Your task to perform on an android device: turn off translation in the chrome app Image 0: 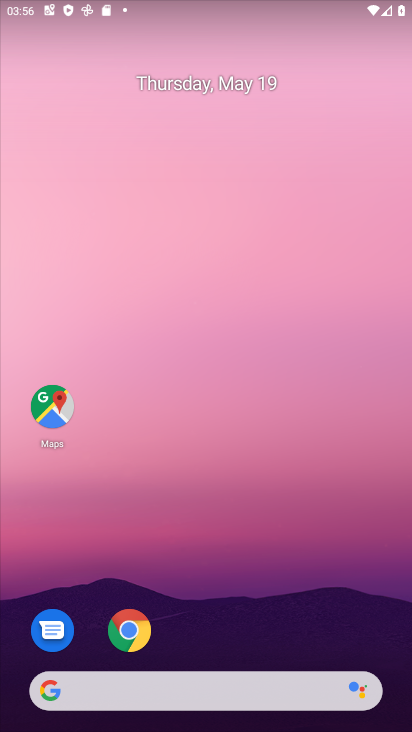
Step 0: click (129, 628)
Your task to perform on an android device: turn off translation in the chrome app Image 1: 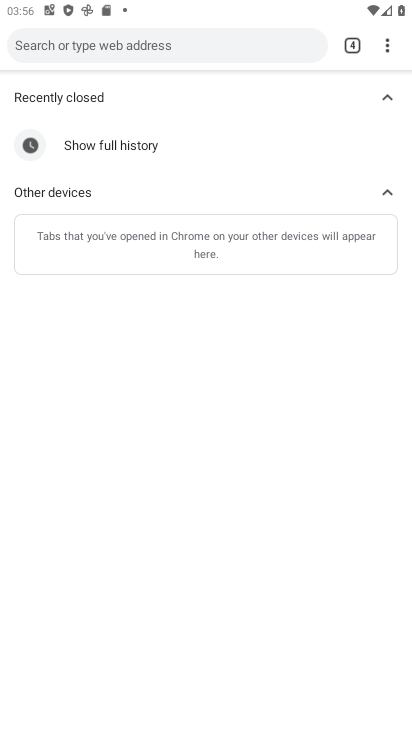
Step 1: click (387, 48)
Your task to perform on an android device: turn off translation in the chrome app Image 2: 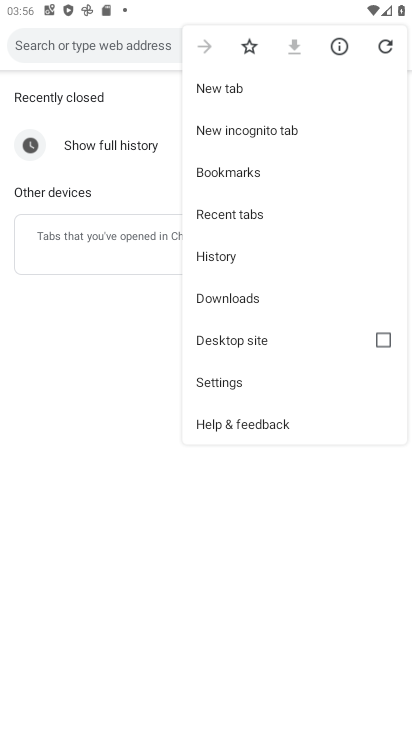
Step 2: click (225, 372)
Your task to perform on an android device: turn off translation in the chrome app Image 3: 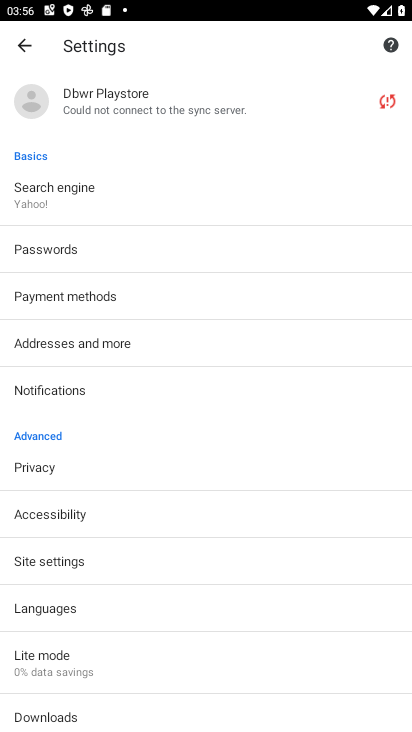
Step 3: drag from (128, 641) to (147, 387)
Your task to perform on an android device: turn off translation in the chrome app Image 4: 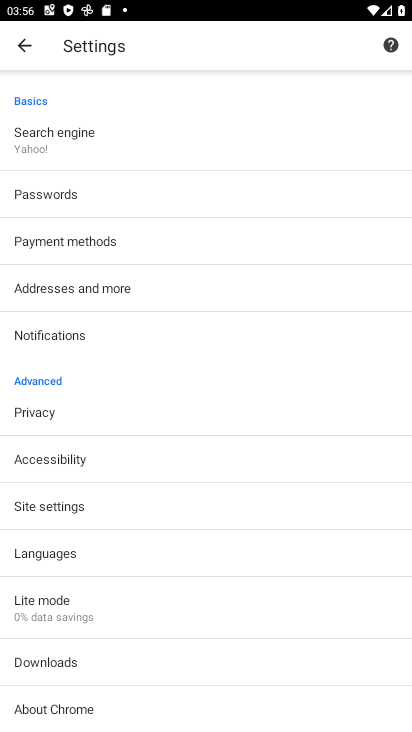
Step 4: click (49, 555)
Your task to perform on an android device: turn off translation in the chrome app Image 5: 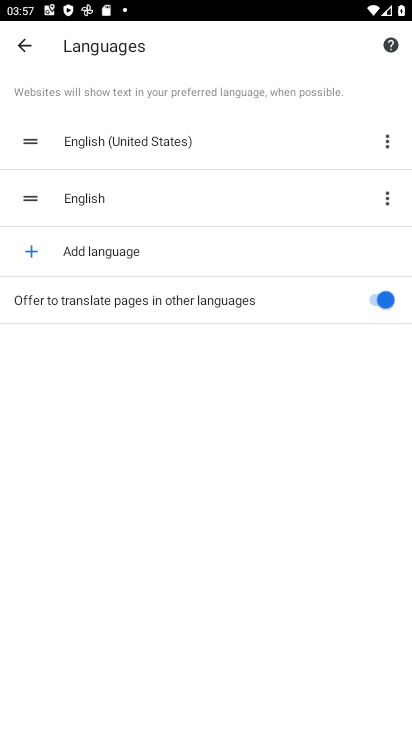
Step 5: click (377, 299)
Your task to perform on an android device: turn off translation in the chrome app Image 6: 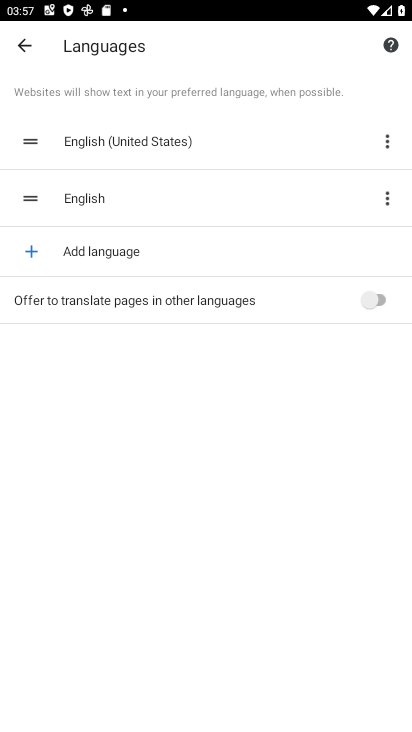
Step 6: task complete